Your task to perform on an android device: stop showing notifications on the lock screen Image 0: 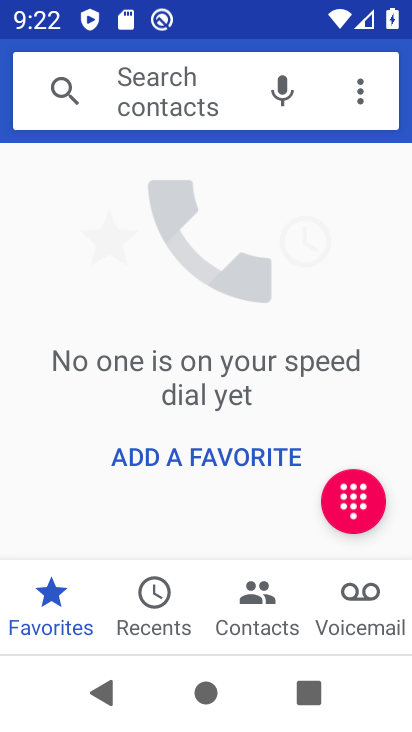
Step 0: press home button
Your task to perform on an android device: stop showing notifications on the lock screen Image 1: 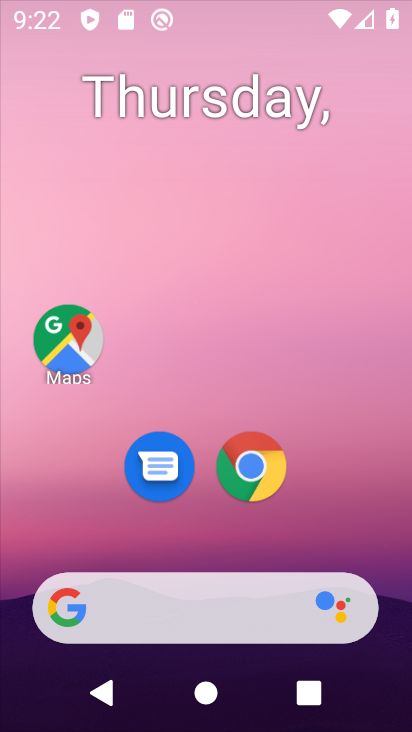
Step 1: drag from (238, 629) to (275, 91)
Your task to perform on an android device: stop showing notifications on the lock screen Image 2: 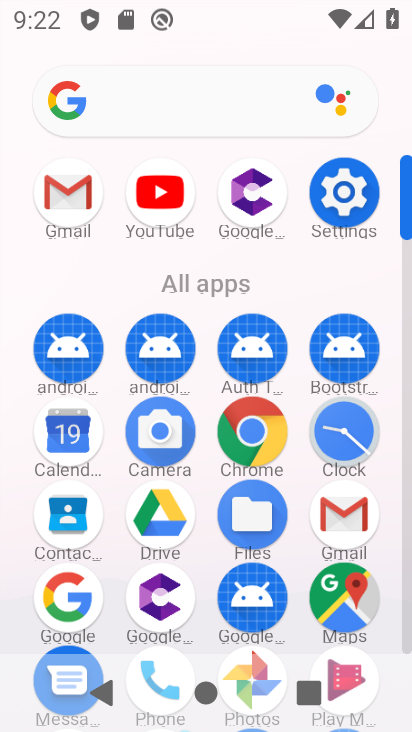
Step 2: click (363, 179)
Your task to perform on an android device: stop showing notifications on the lock screen Image 3: 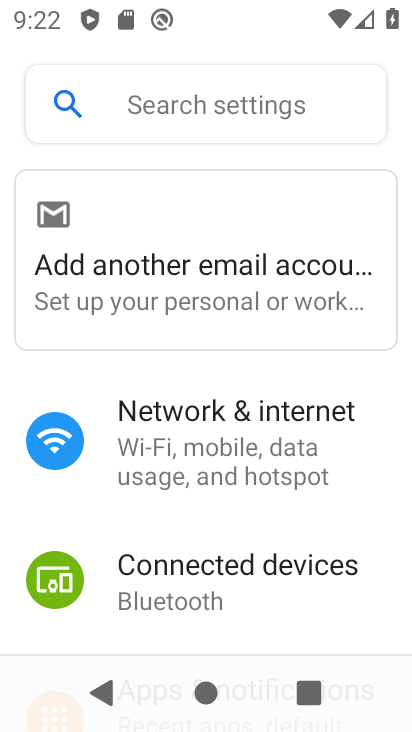
Step 3: drag from (263, 631) to (302, 273)
Your task to perform on an android device: stop showing notifications on the lock screen Image 4: 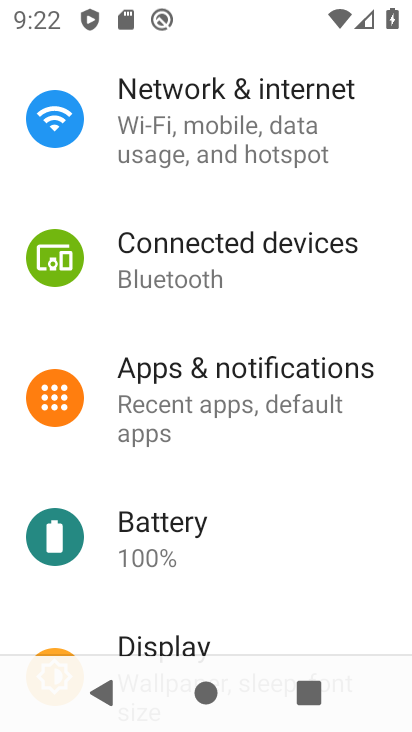
Step 4: click (238, 405)
Your task to perform on an android device: stop showing notifications on the lock screen Image 5: 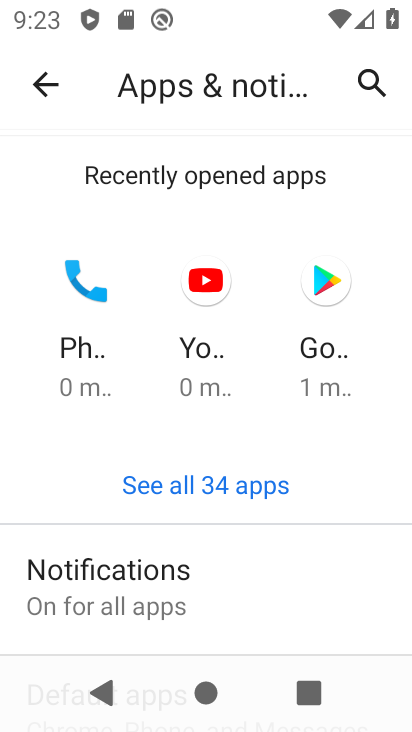
Step 5: click (191, 599)
Your task to perform on an android device: stop showing notifications on the lock screen Image 6: 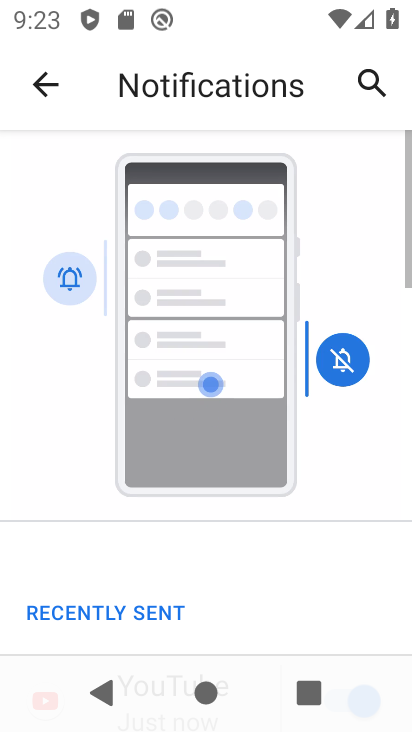
Step 6: drag from (221, 565) to (229, 243)
Your task to perform on an android device: stop showing notifications on the lock screen Image 7: 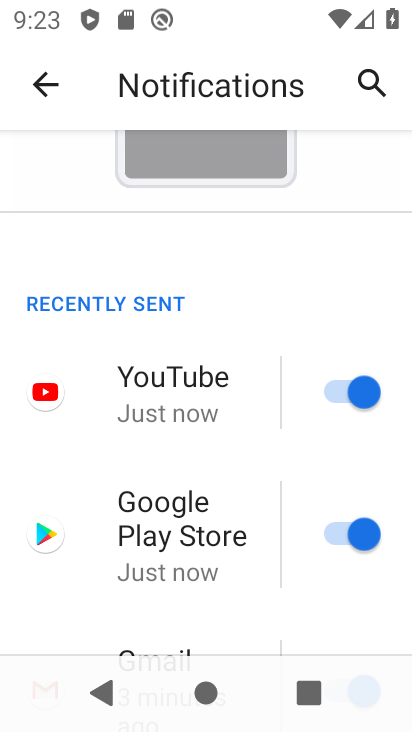
Step 7: drag from (324, 623) to (269, 282)
Your task to perform on an android device: stop showing notifications on the lock screen Image 8: 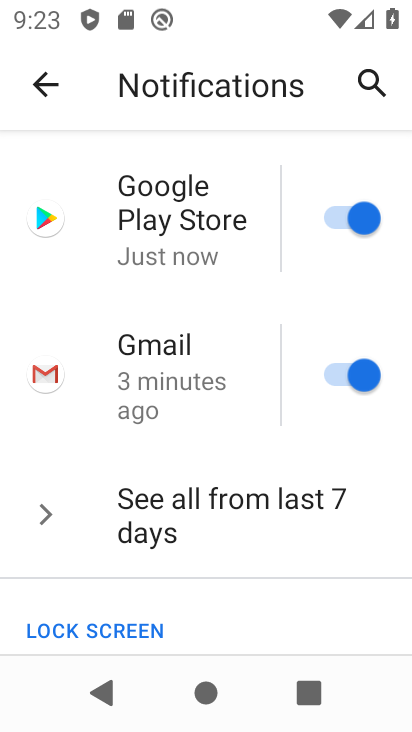
Step 8: drag from (250, 587) to (253, 287)
Your task to perform on an android device: stop showing notifications on the lock screen Image 9: 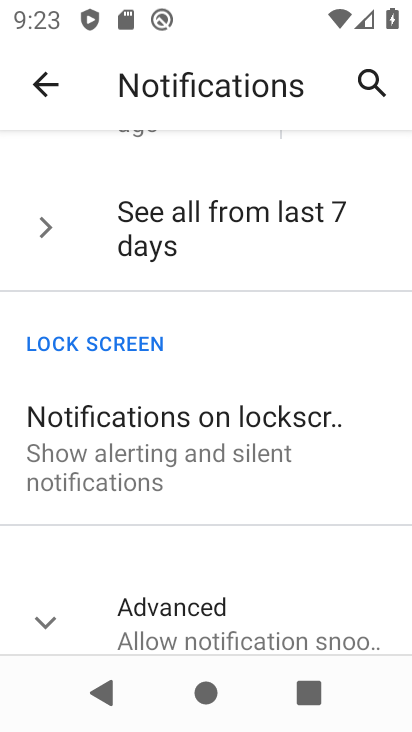
Step 9: click (278, 402)
Your task to perform on an android device: stop showing notifications on the lock screen Image 10: 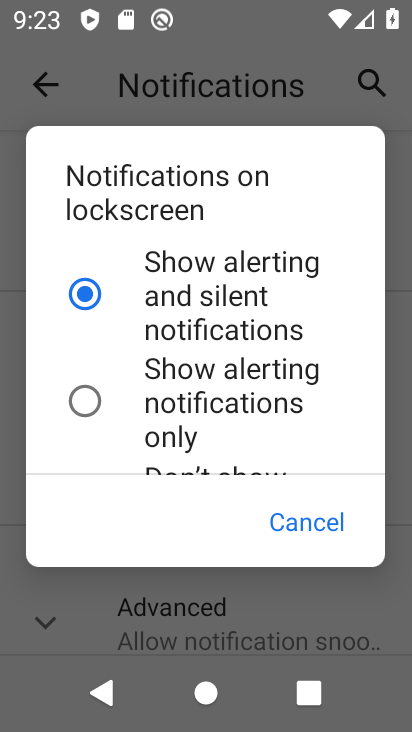
Step 10: drag from (166, 447) to (207, 256)
Your task to perform on an android device: stop showing notifications on the lock screen Image 11: 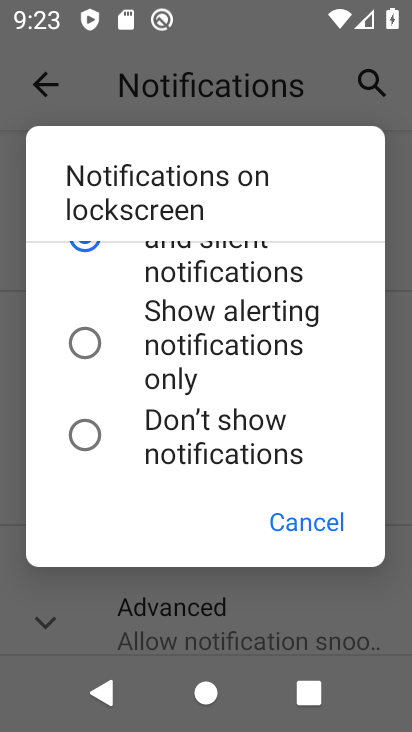
Step 11: click (183, 449)
Your task to perform on an android device: stop showing notifications on the lock screen Image 12: 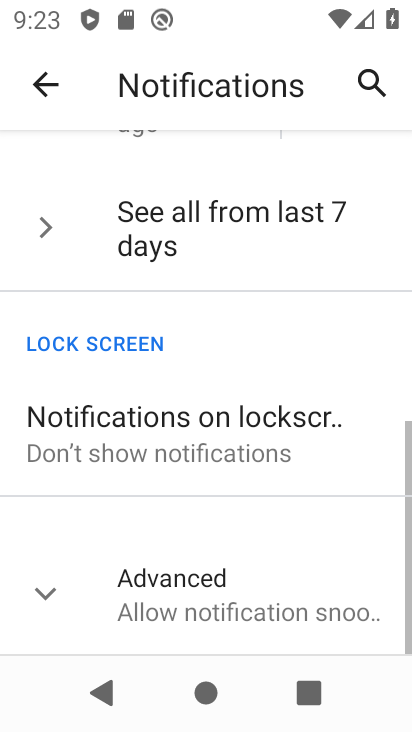
Step 12: task complete